Your task to perform on an android device: turn off data saver in the chrome app Image 0: 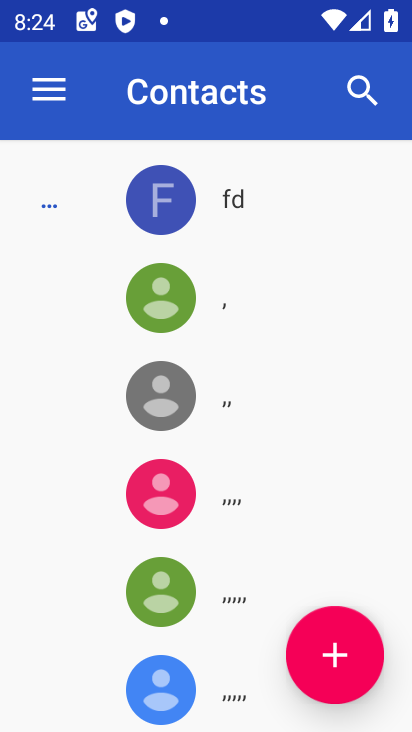
Step 0: press home button
Your task to perform on an android device: turn off data saver in the chrome app Image 1: 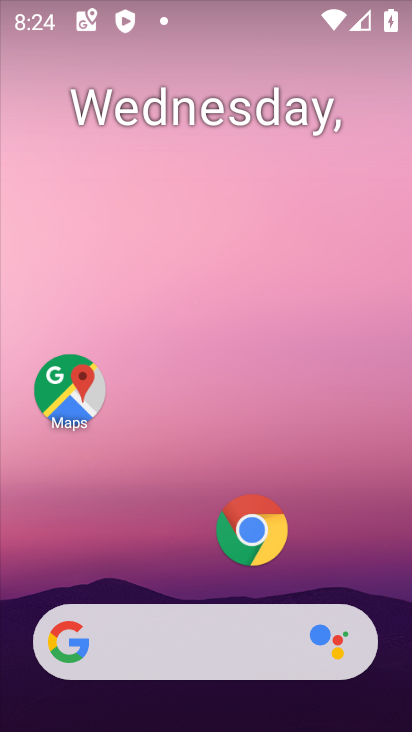
Step 1: click (249, 522)
Your task to perform on an android device: turn off data saver in the chrome app Image 2: 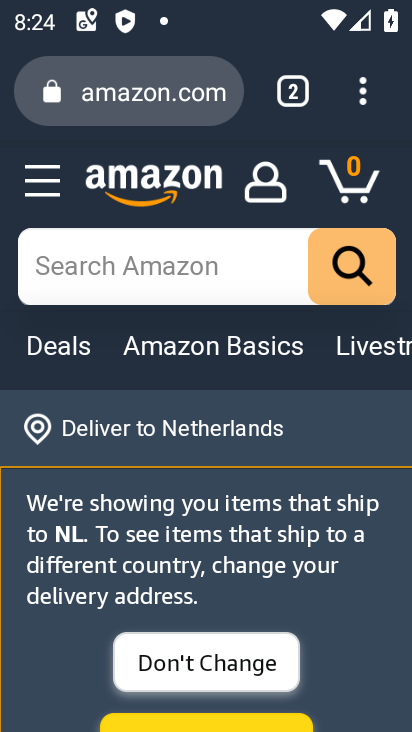
Step 2: drag from (364, 85) to (126, 560)
Your task to perform on an android device: turn off data saver in the chrome app Image 3: 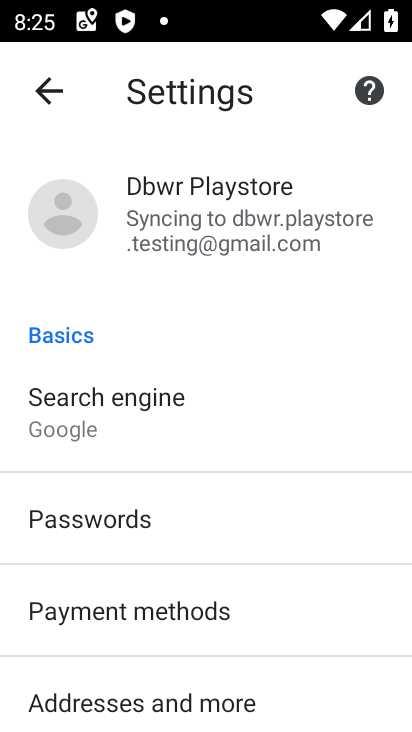
Step 3: drag from (130, 589) to (218, 80)
Your task to perform on an android device: turn off data saver in the chrome app Image 4: 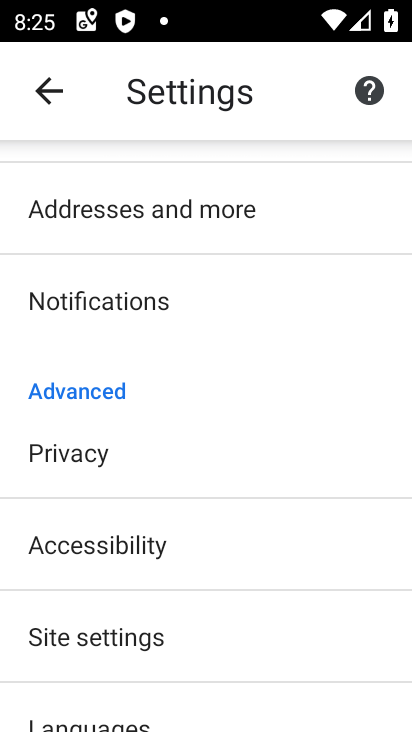
Step 4: drag from (134, 670) to (199, 150)
Your task to perform on an android device: turn off data saver in the chrome app Image 5: 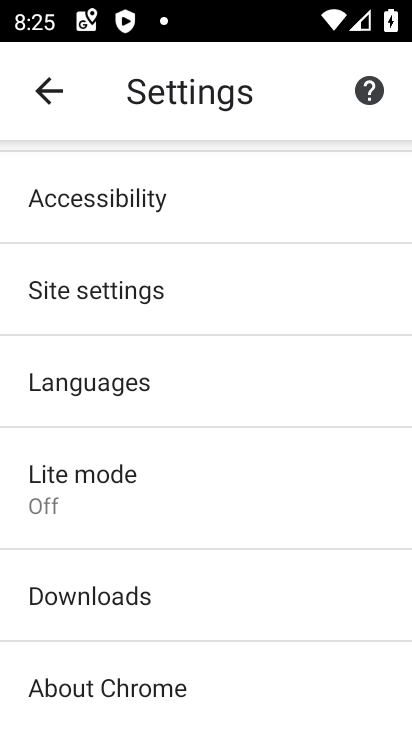
Step 5: click (90, 492)
Your task to perform on an android device: turn off data saver in the chrome app Image 6: 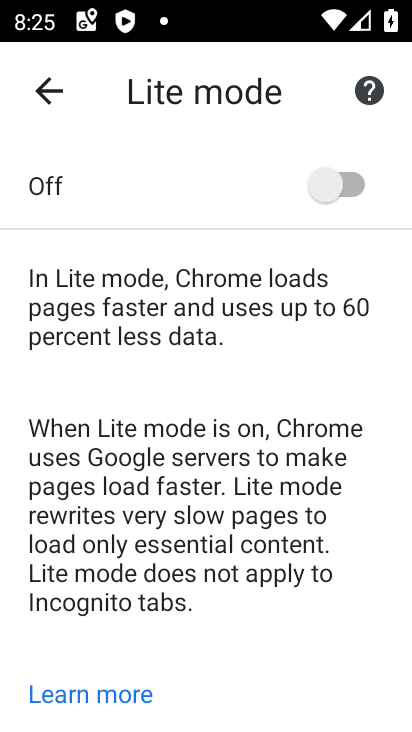
Step 6: task complete